Your task to perform on an android device: Do I have any events tomorrow? Image 0: 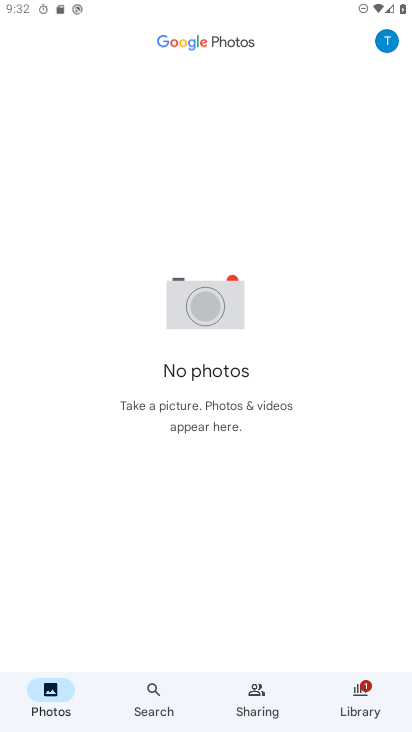
Step 0: press home button
Your task to perform on an android device: Do I have any events tomorrow? Image 1: 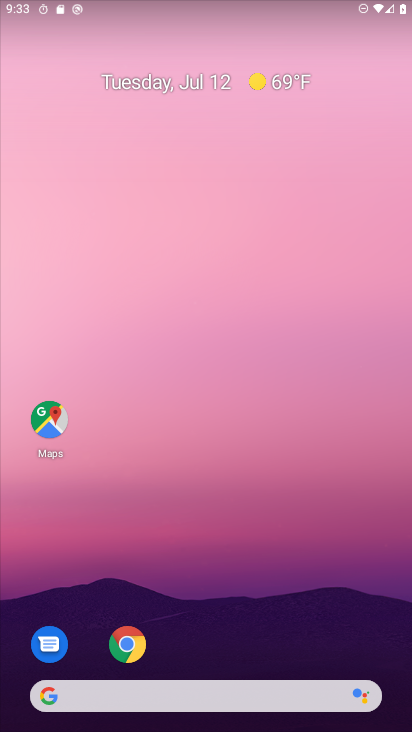
Step 1: drag from (213, 663) to (272, 13)
Your task to perform on an android device: Do I have any events tomorrow? Image 2: 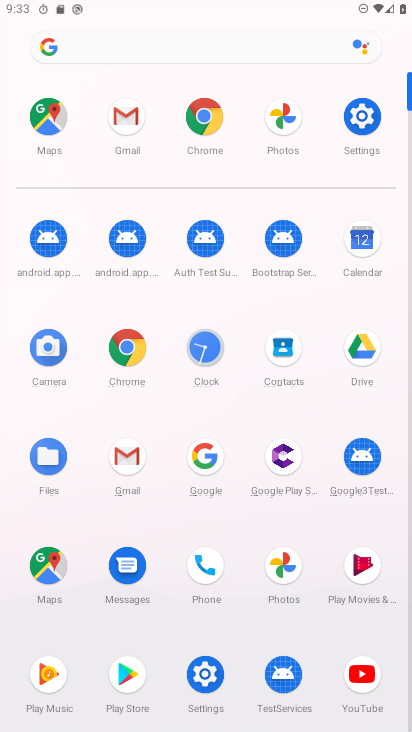
Step 2: click (365, 230)
Your task to perform on an android device: Do I have any events tomorrow? Image 3: 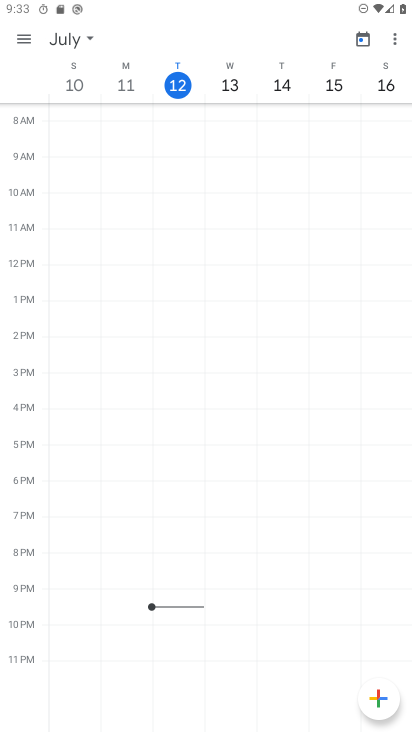
Step 3: click (225, 81)
Your task to perform on an android device: Do I have any events tomorrow? Image 4: 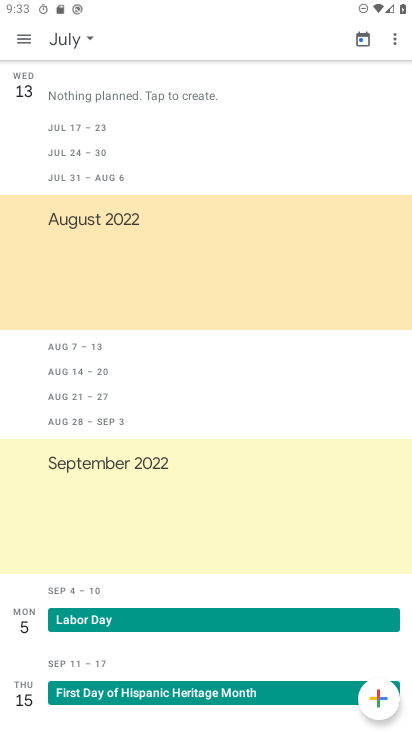
Step 4: click (27, 41)
Your task to perform on an android device: Do I have any events tomorrow? Image 5: 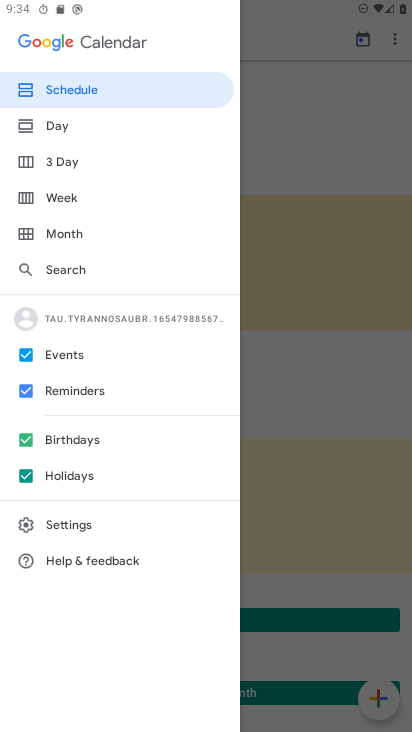
Step 5: click (63, 129)
Your task to perform on an android device: Do I have any events tomorrow? Image 6: 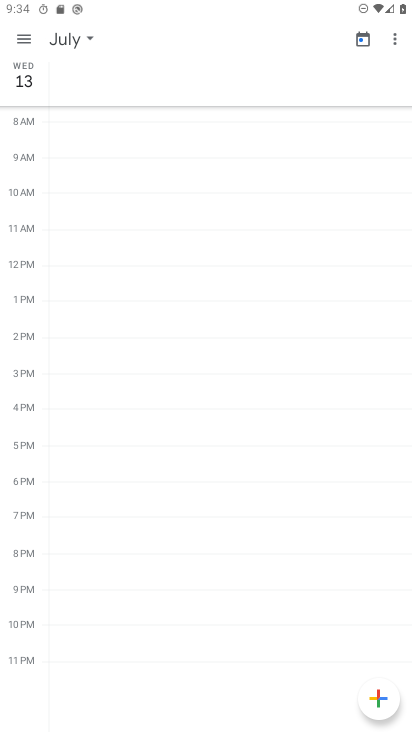
Step 6: task complete